Your task to perform on an android device: Open the Play Movies app and select the watchlist tab. Image 0: 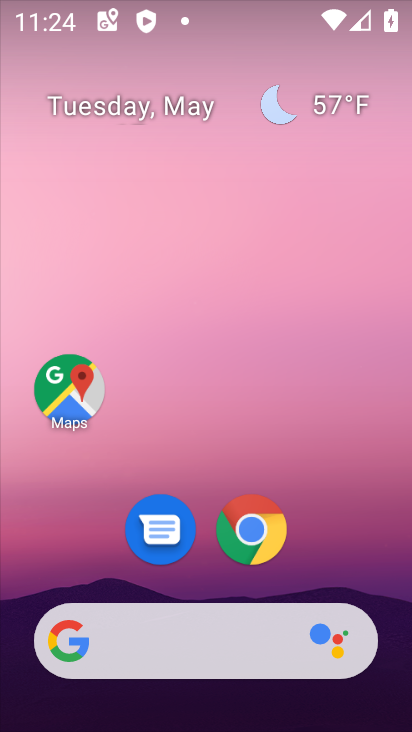
Step 0: drag from (212, 580) to (222, 86)
Your task to perform on an android device: Open the Play Movies app and select the watchlist tab. Image 1: 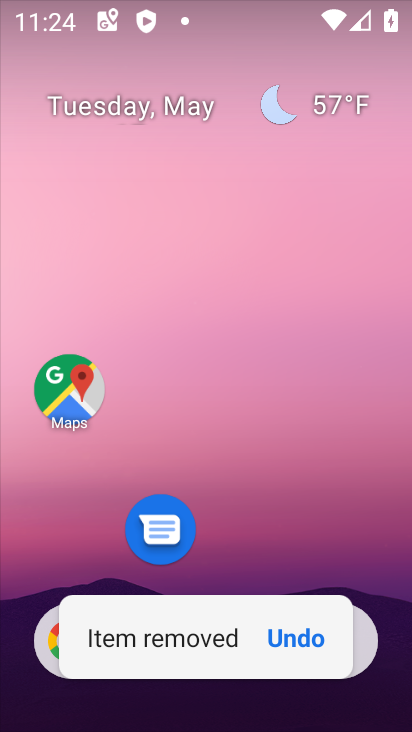
Step 1: click (319, 650)
Your task to perform on an android device: Open the Play Movies app and select the watchlist tab. Image 2: 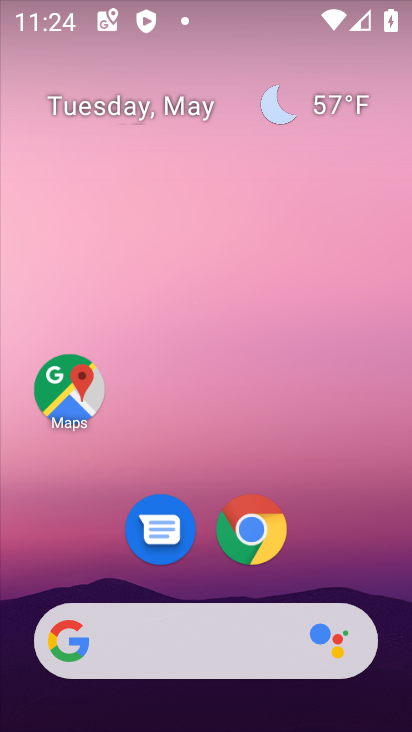
Step 2: drag from (214, 584) to (191, 144)
Your task to perform on an android device: Open the Play Movies app and select the watchlist tab. Image 3: 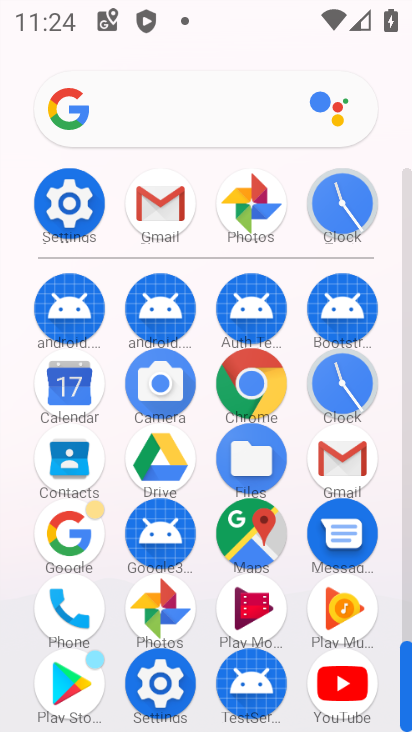
Step 3: click (265, 604)
Your task to perform on an android device: Open the Play Movies app and select the watchlist tab. Image 4: 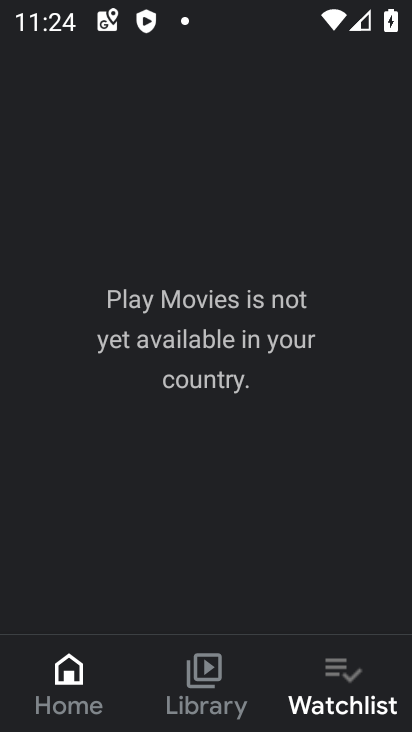
Step 4: click (321, 692)
Your task to perform on an android device: Open the Play Movies app and select the watchlist tab. Image 5: 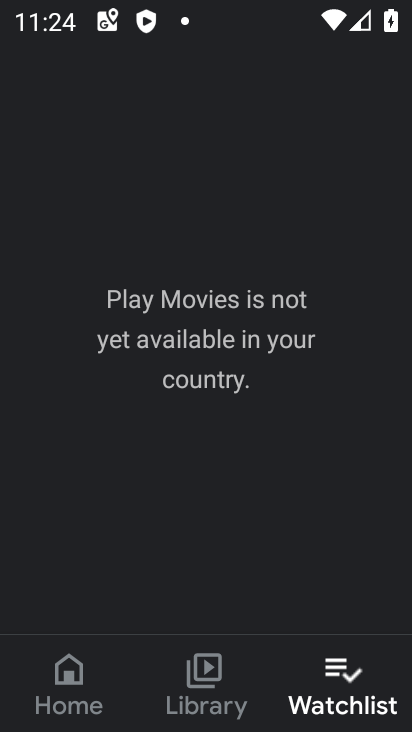
Step 5: task complete